Your task to perform on an android device: open a bookmark in the chrome app Image 0: 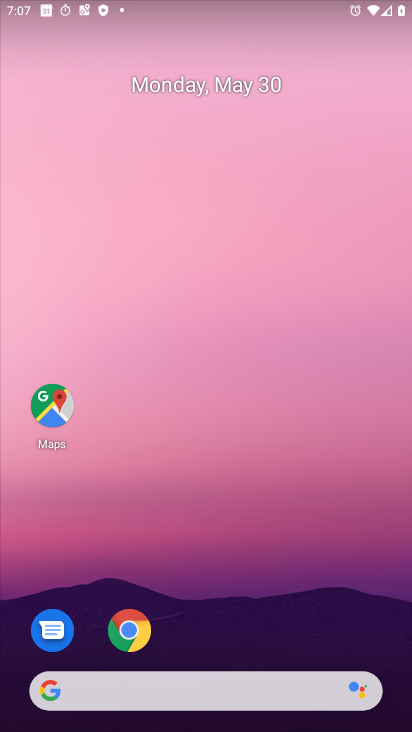
Step 0: drag from (343, 591) to (317, 1)
Your task to perform on an android device: open a bookmark in the chrome app Image 1: 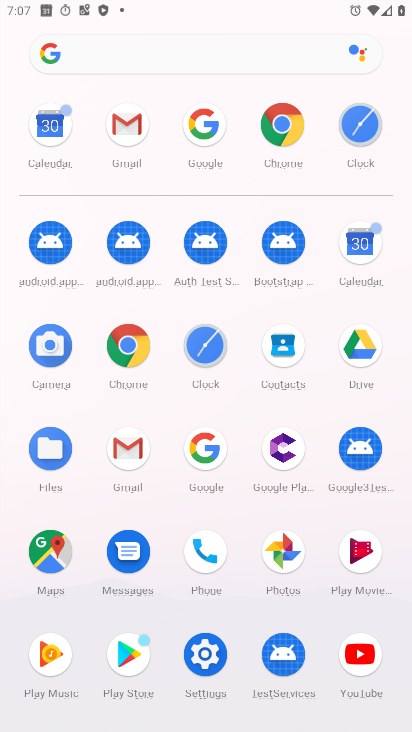
Step 1: click (285, 131)
Your task to perform on an android device: open a bookmark in the chrome app Image 2: 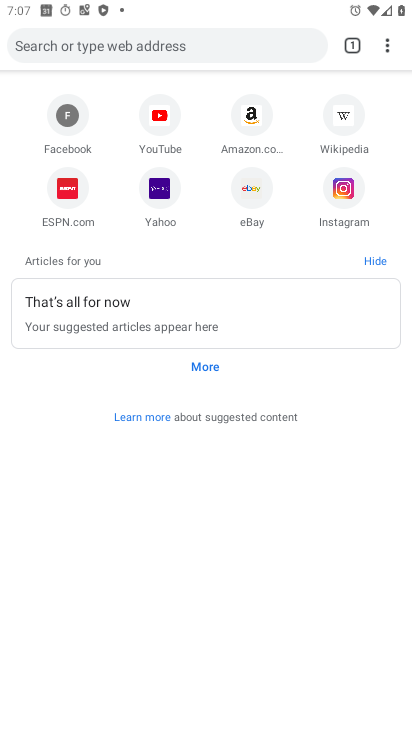
Step 2: click (393, 42)
Your task to perform on an android device: open a bookmark in the chrome app Image 3: 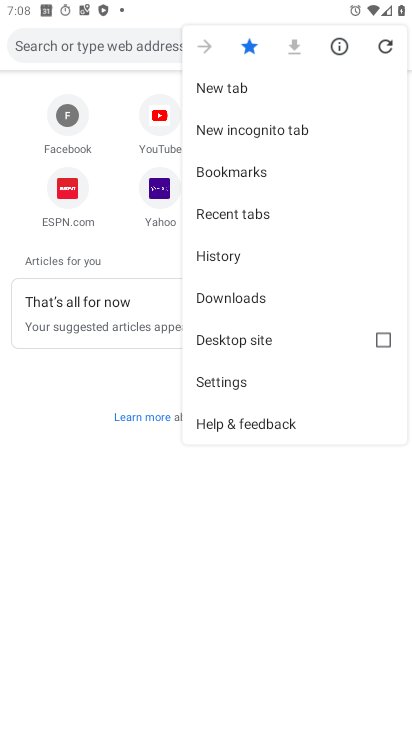
Step 3: click (245, 189)
Your task to perform on an android device: open a bookmark in the chrome app Image 4: 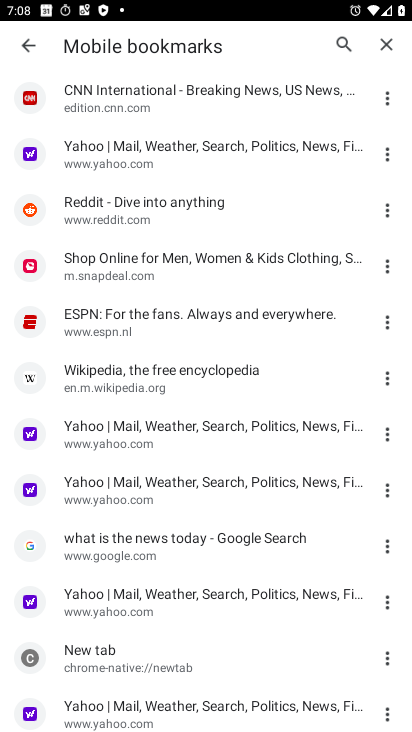
Step 4: task complete